Your task to perform on an android device: Open Chrome and go to settings Image 0: 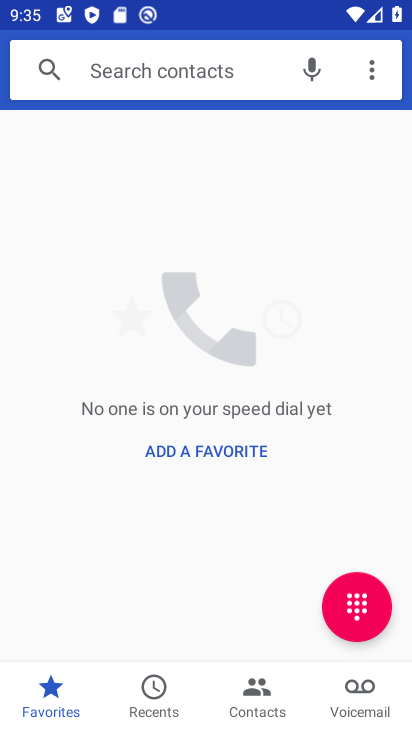
Step 0: press home button
Your task to perform on an android device: Open Chrome and go to settings Image 1: 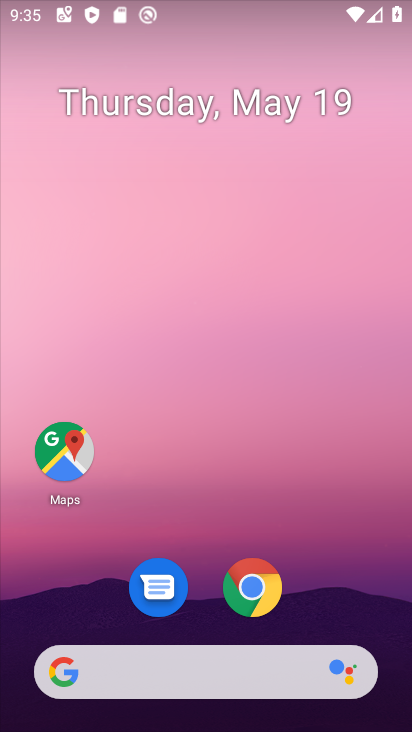
Step 1: click (260, 597)
Your task to perform on an android device: Open Chrome and go to settings Image 2: 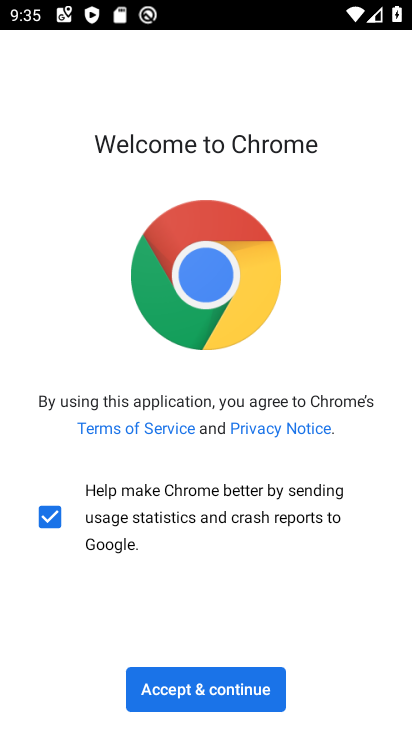
Step 2: click (230, 689)
Your task to perform on an android device: Open Chrome and go to settings Image 3: 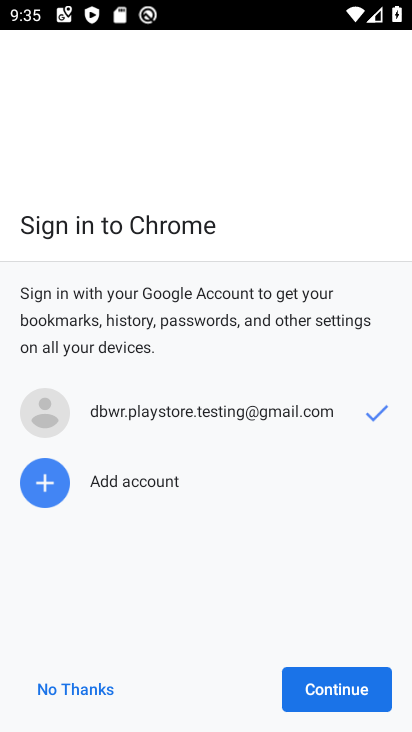
Step 3: click (329, 680)
Your task to perform on an android device: Open Chrome and go to settings Image 4: 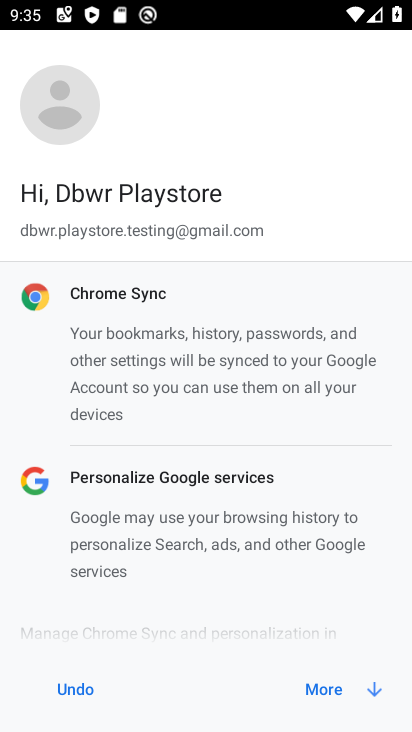
Step 4: click (329, 680)
Your task to perform on an android device: Open Chrome and go to settings Image 5: 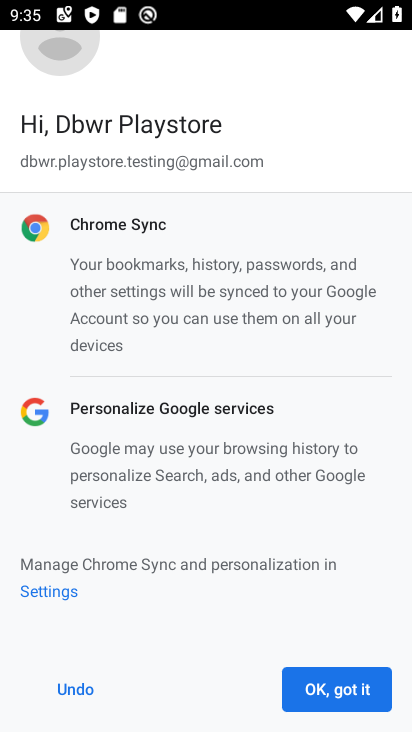
Step 5: click (329, 680)
Your task to perform on an android device: Open Chrome and go to settings Image 6: 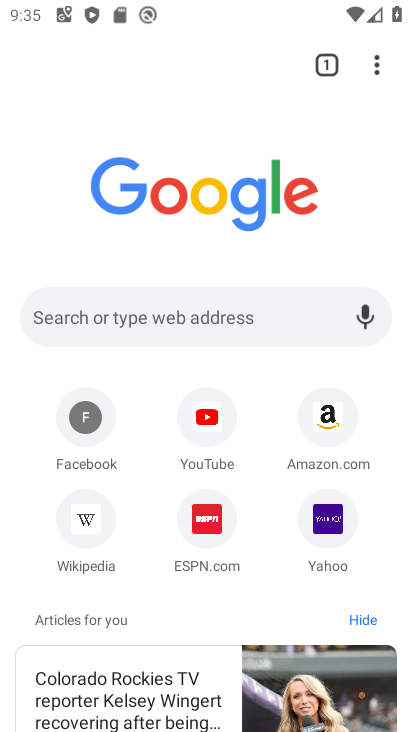
Step 6: click (386, 57)
Your task to perform on an android device: Open Chrome and go to settings Image 7: 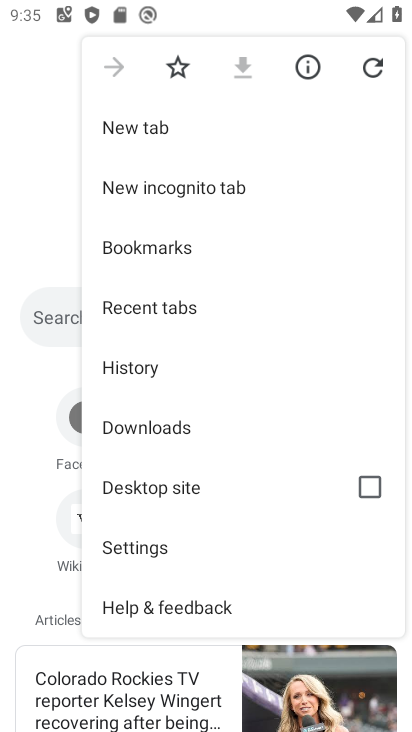
Step 7: click (151, 541)
Your task to perform on an android device: Open Chrome and go to settings Image 8: 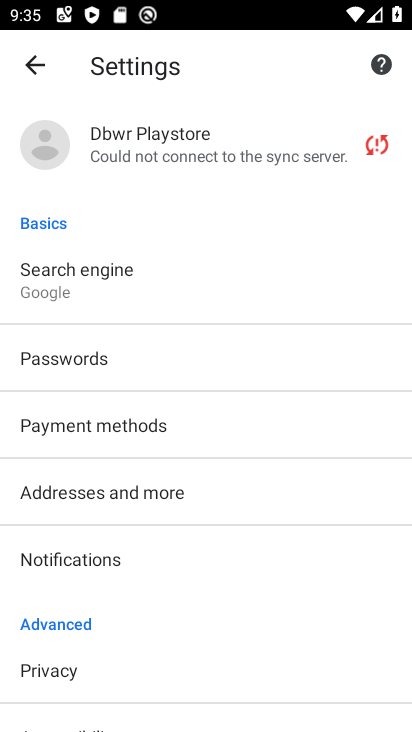
Step 8: task complete